Your task to perform on an android device: What is the news today? Image 0: 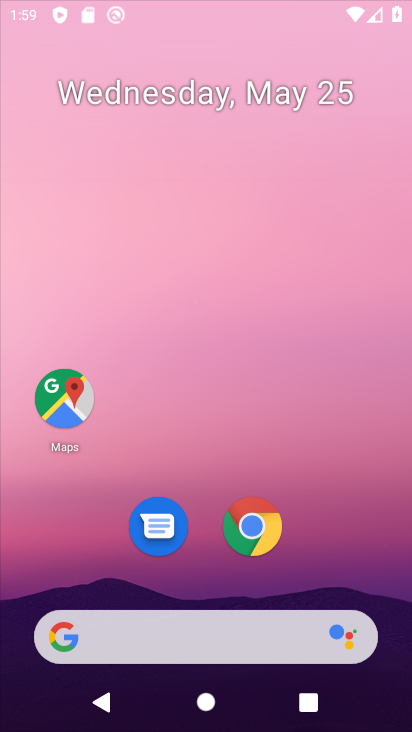
Step 0: click (391, 134)
Your task to perform on an android device: What is the news today? Image 1: 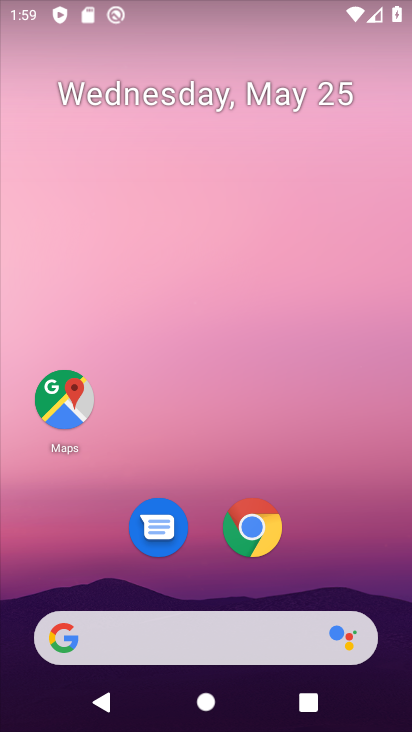
Step 1: drag from (222, 584) to (279, 0)
Your task to perform on an android device: What is the news today? Image 2: 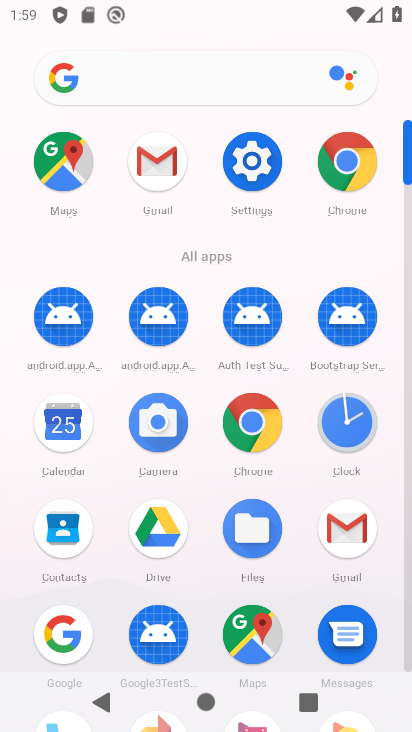
Step 2: click (124, 75)
Your task to perform on an android device: What is the news today? Image 3: 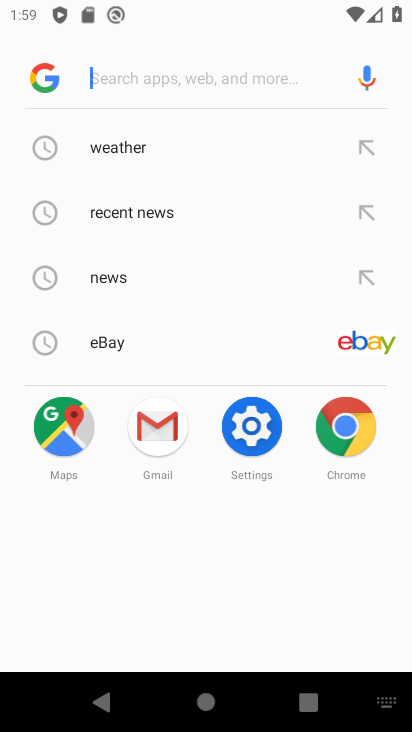
Step 3: type "news today"
Your task to perform on an android device: What is the news today? Image 4: 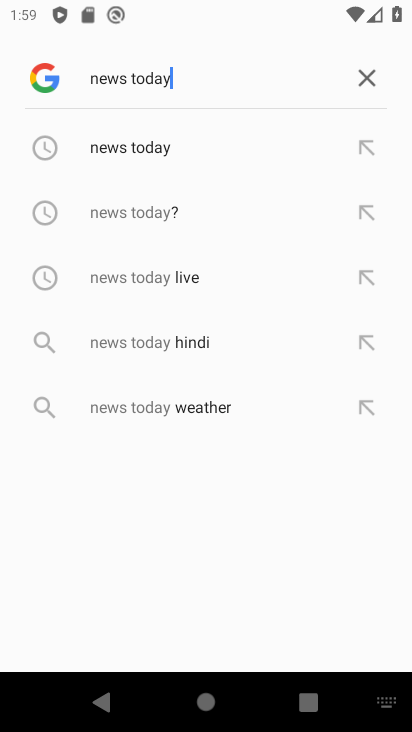
Step 4: click (141, 153)
Your task to perform on an android device: What is the news today? Image 5: 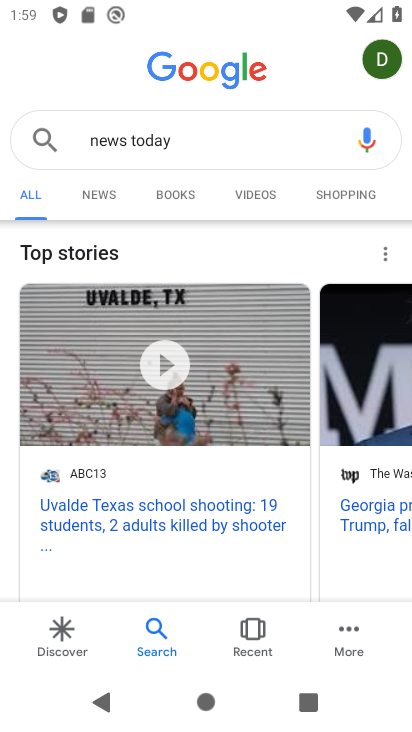
Step 5: task complete